Your task to perform on an android device: see creations saved in the google photos Image 0: 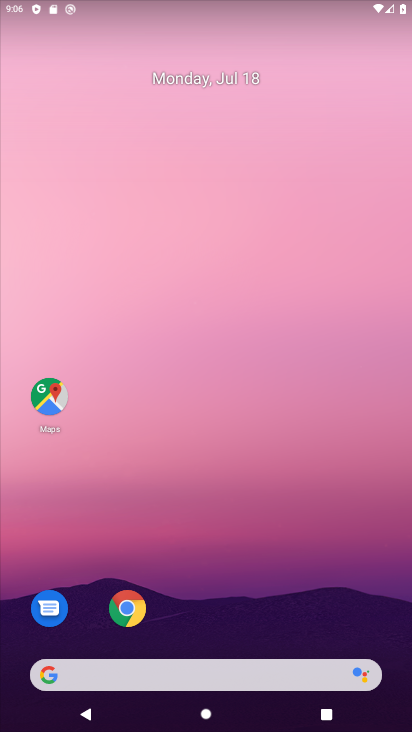
Step 0: drag from (215, 641) to (218, 0)
Your task to perform on an android device: see creations saved in the google photos Image 1: 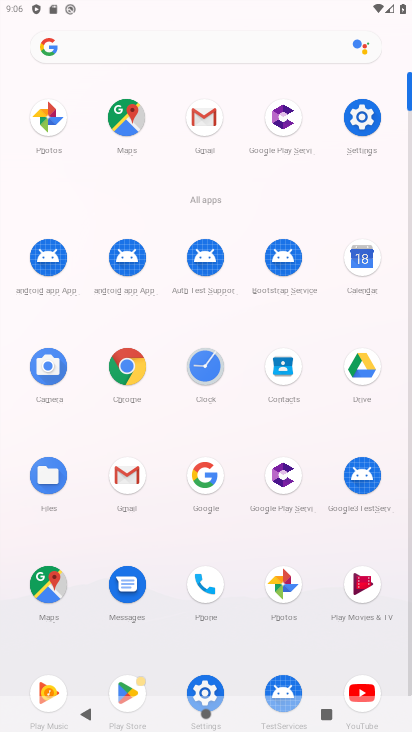
Step 1: click (282, 575)
Your task to perform on an android device: see creations saved in the google photos Image 2: 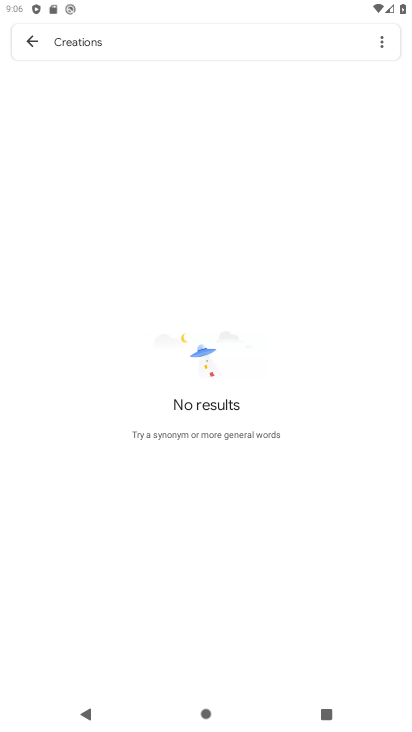
Step 2: task complete